Your task to perform on an android device: snooze an email in the gmail app Image 0: 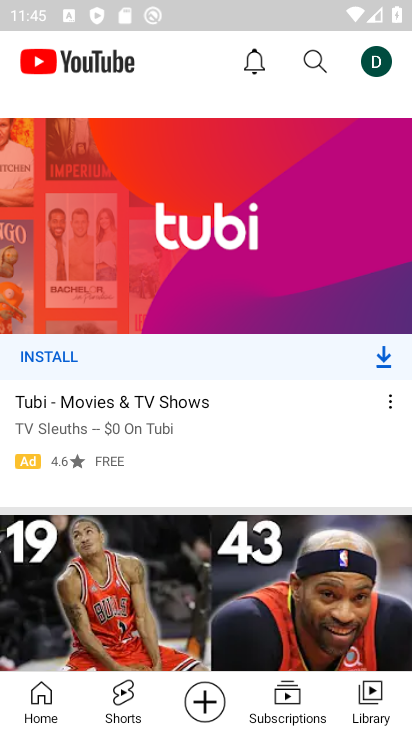
Step 0: press home button
Your task to perform on an android device: snooze an email in the gmail app Image 1: 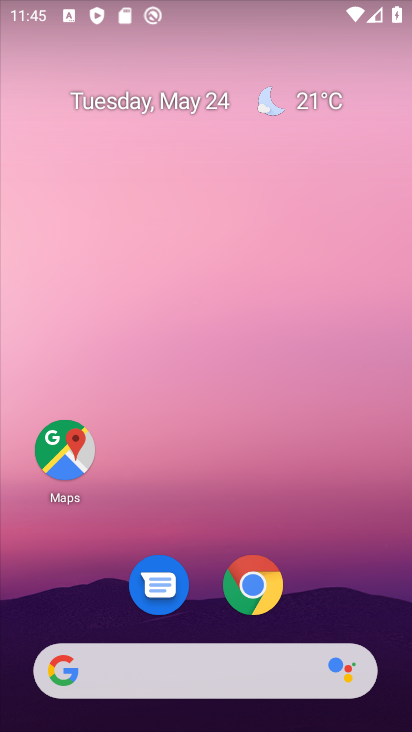
Step 1: drag from (219, 508) to (270, 27)
Your task to perform on an android device: snooze an email in the gmail app Image 2: 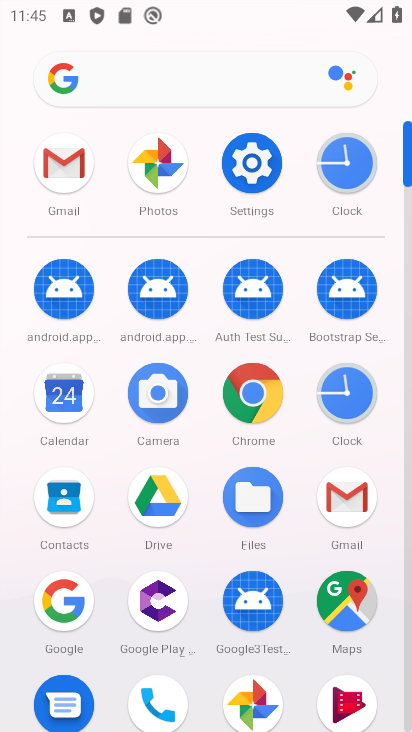
Step 2: click (69, 165)
Your task to perform on an android device: snooze an email in the gmail app Image 3: 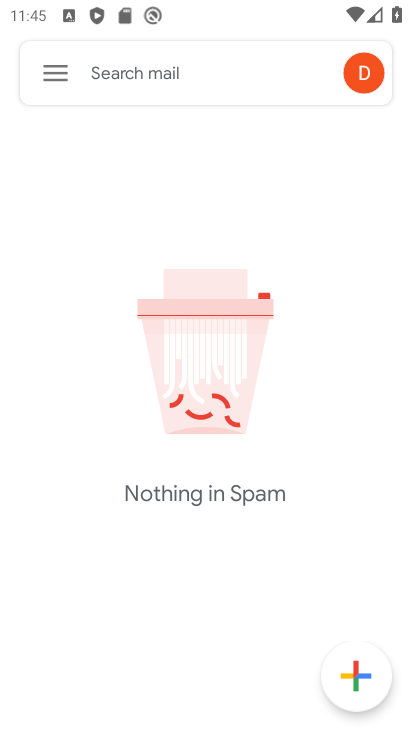
Step 3: click (59, 68)
Your task to perform on an android device: snooze an email in the gmail app Image 4: 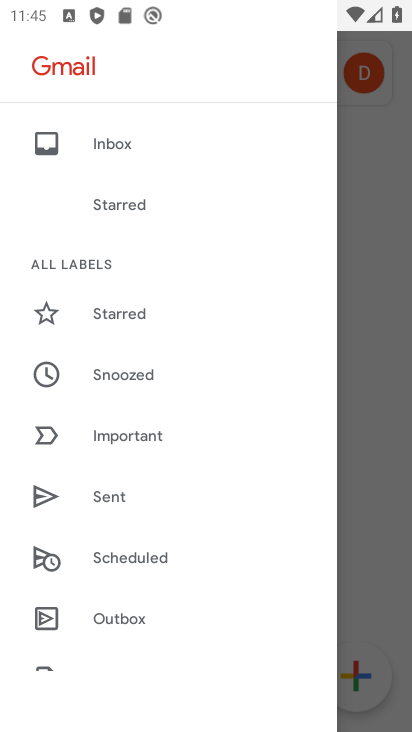
Step 4: drag from (176, 519) to (216, 219)
Your task to perform on an android device: snooze an email in the gmail app Image 5: 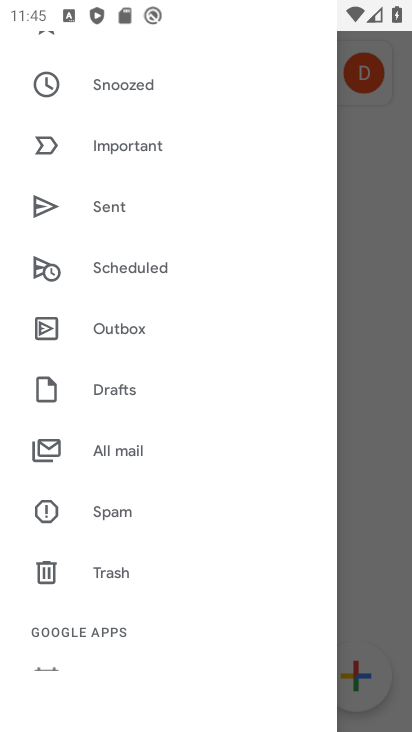
Step 5: click (146, 452)
Your task to perform on an android device: snooze an email in the gmail app Image 6: 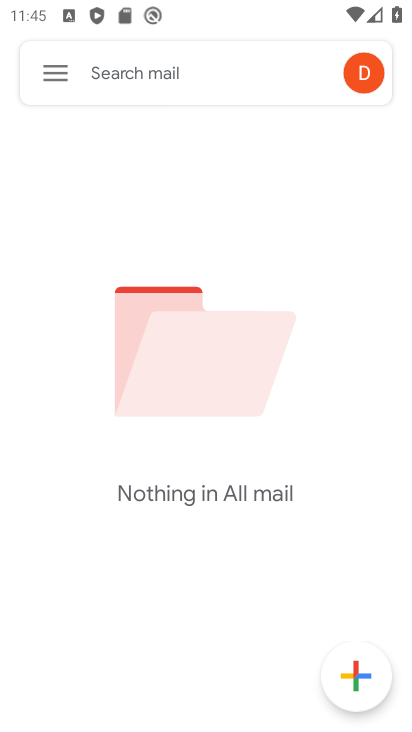
Step 6: task complete